Your task to perform on an android device: turn on sleep mode Image 0: 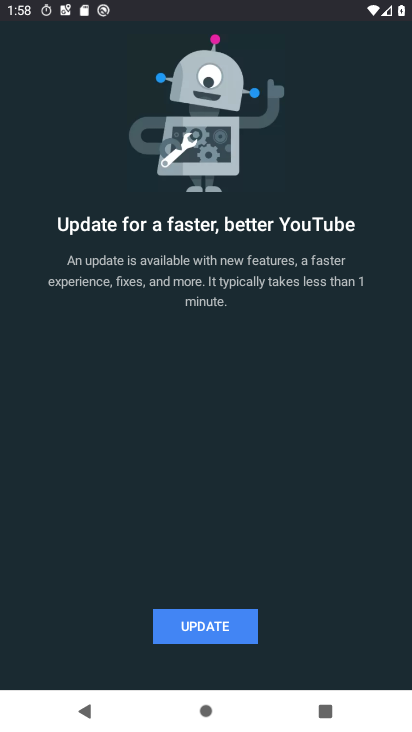
Step 0: press home button
Your task to perform on an android device: turn on sleep mode Image 1: 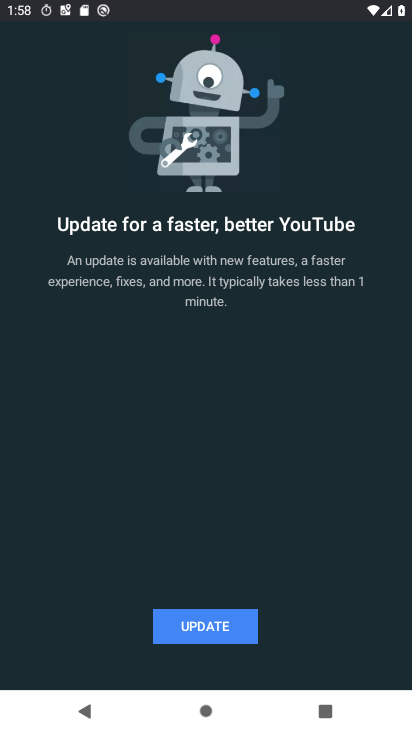
Step 1: drag from (248, 637) to (248, 57)
Your task to perform on an android device: turn on sleep mode Image 2: 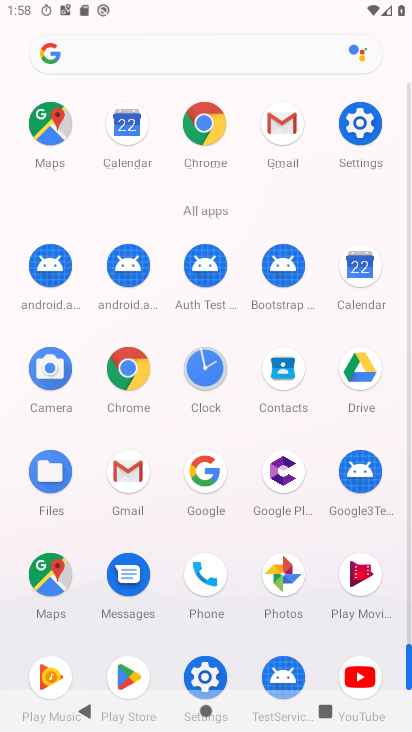
Step 2: click (207, 675)
Your task to perform on an android device: turn on sleep mode Image 3: 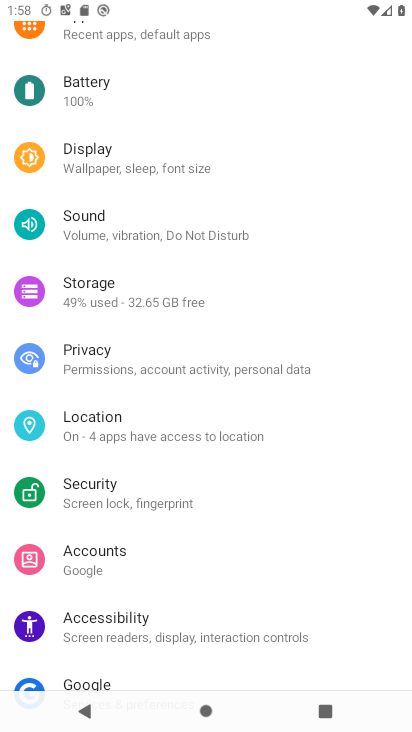
Step 3: click (104, 149)
Your task to perform on an android device: turn on sleep mode Image 4: 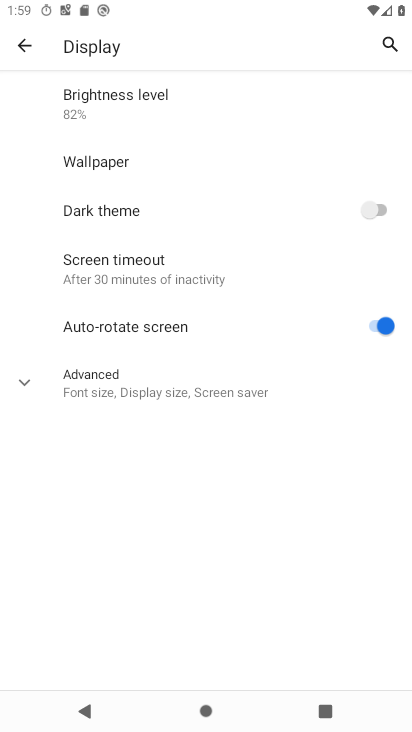
Step 4: task complete